Your task to perform on an android device: refresh tabs in the chrome app Image 0: 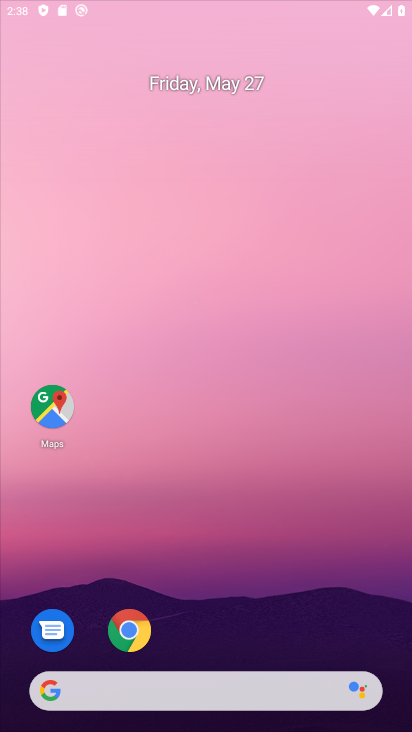
Step 0: click (399, 111)
Your task to perform on an android device: refresh tabs in the chrome app Image 1: 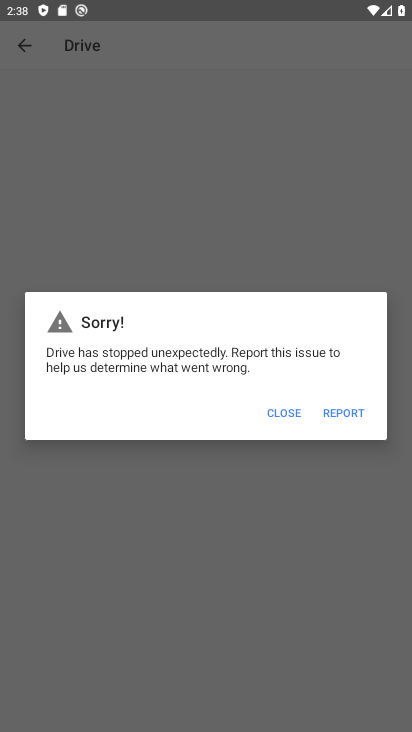
Step 1: press home button
Your task to perform on an android device: refresh tabs in the chrome app Image 2: 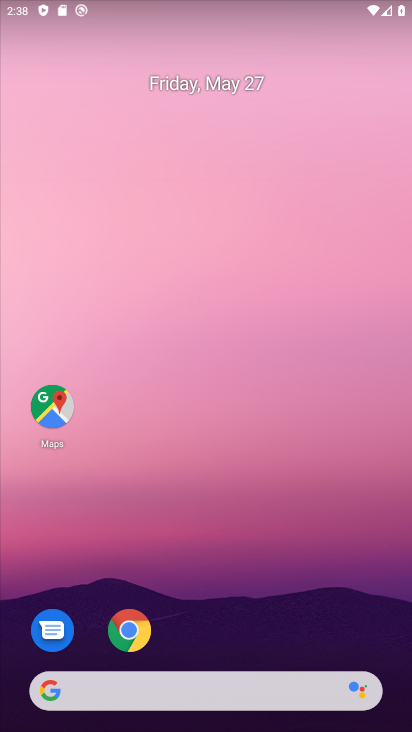
Step 2: click (140, 633)
Your task to perform on an android device: refresh tabs in the chrome app Image 3: 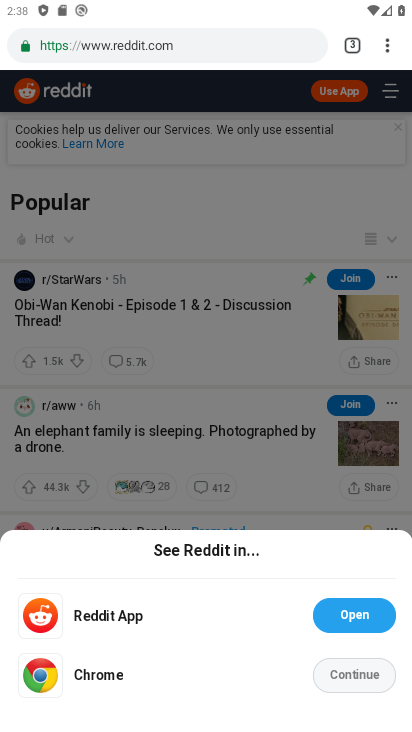
Step 3: click (356, 675)
Your task to perform on an android device: refresh tabs in the chrome app Image 4: 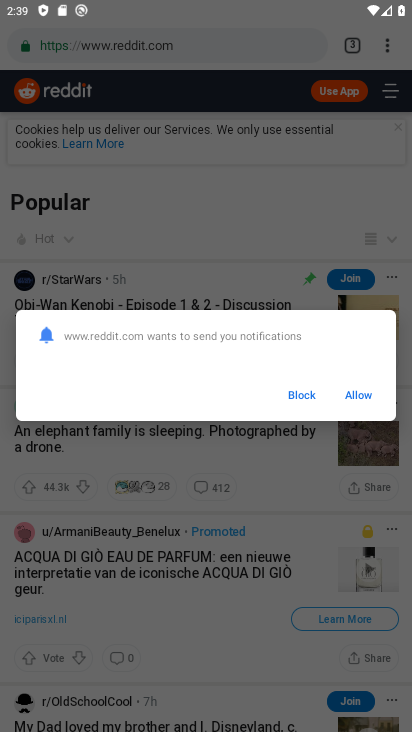
Step 4: click (375, 51)
Your task to perform on an android device: refresh tabs in the chrome app Image 5: 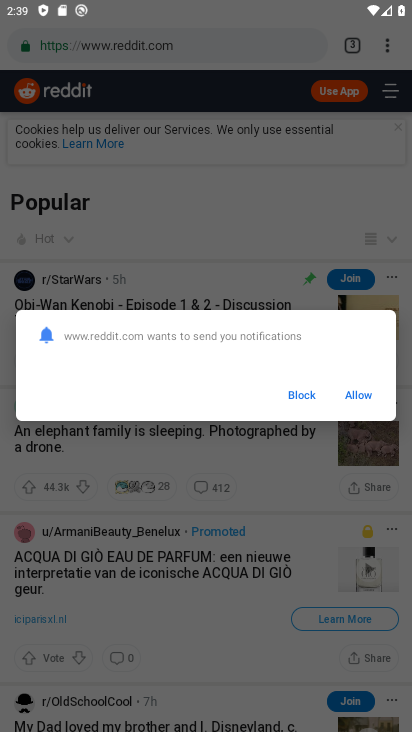
Step 5: click (358, 395)
Your task to perform on an android device: refresh tabs in the chrome app Image 6: 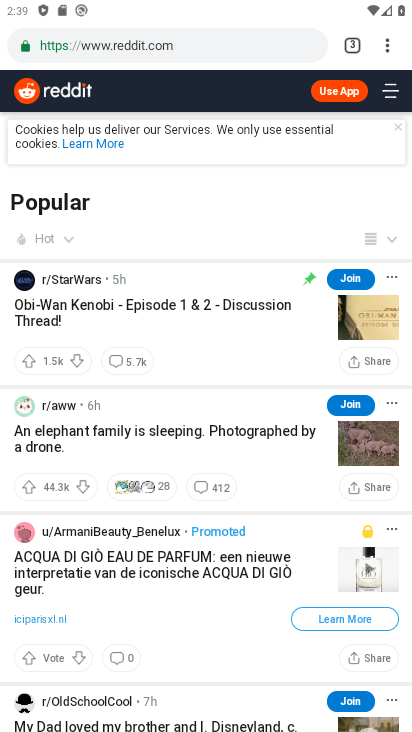
Step 6: click (396, 47)
Your task to perform on an android device: refresh tabs in the chrome app Image 7: 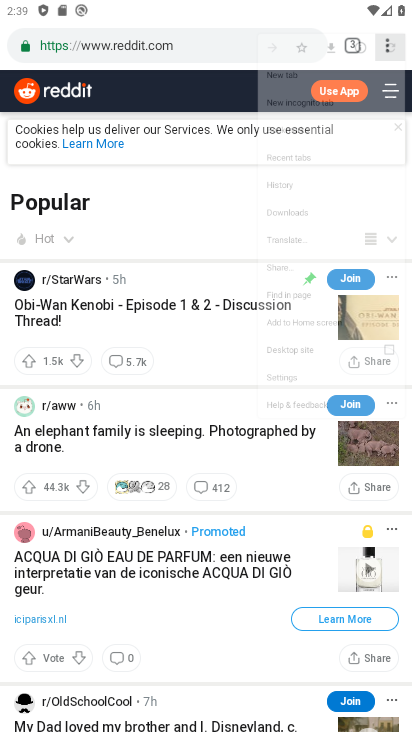
Step 7: click (395, 47)
Your task to perform on an android device: refresh tabs in the chrome app Image 8: 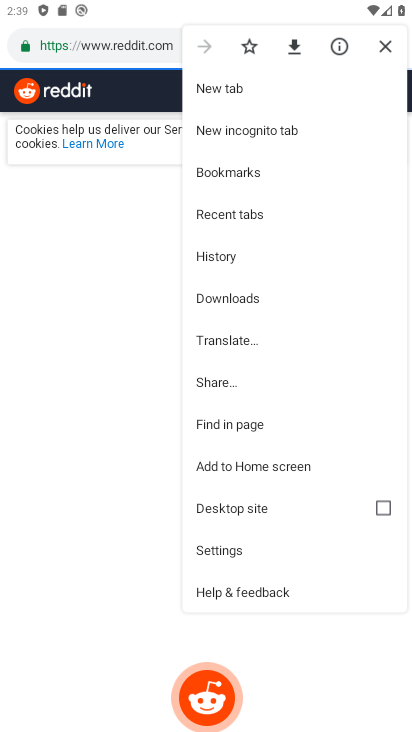
Step 8: task complete